Your task to perform on an android device: Go to Yahoo.com Image 0: 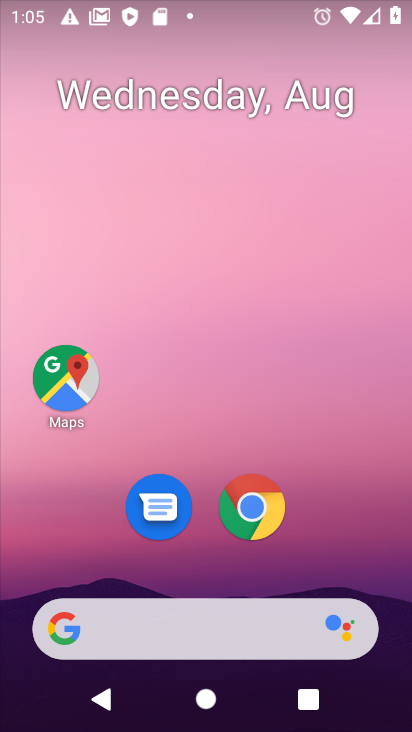
Step 0: drag from (206, 556) to (149, 145)
Your task to perform on an android device: Go to Yahoo.com Image 1: 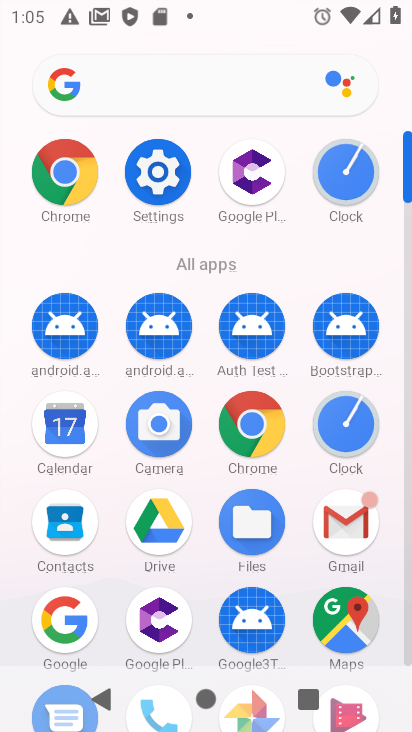
Step 1: click (275, 419)
Your task to perform on an android device: Go to Yahoo.com Image 2: 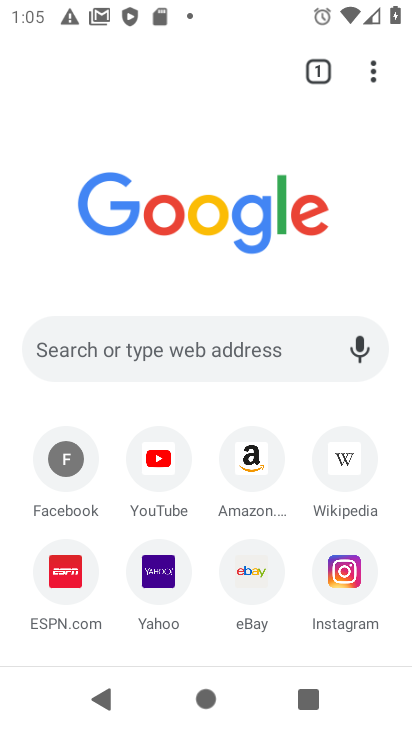
Step 2: click (144, 576)
Your task to perform on an android device: Go to Yahoo.com Image 3: 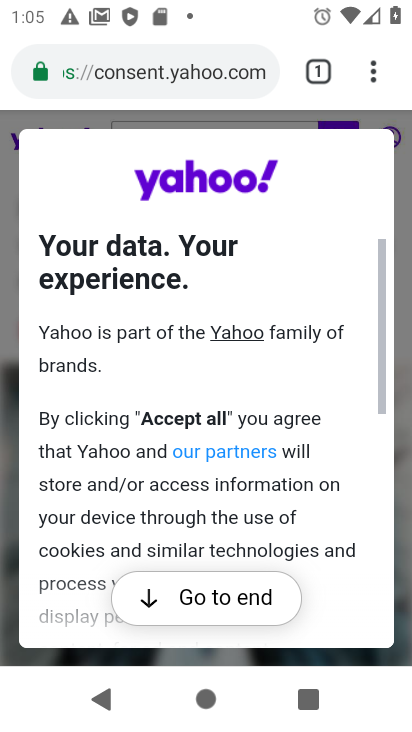
Step 3: click (219, 596)
Your task to perform on an android device: Go to Yahoo.com Image 4: 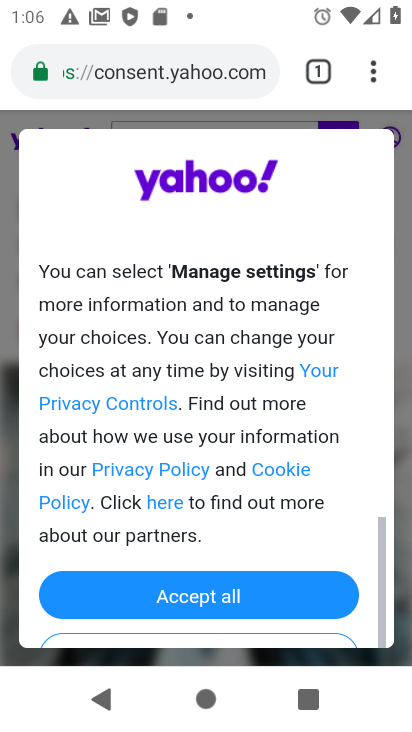
Step 4: click (233, 588)
Your task to perform on an android device: Go to Yahoo.com Image 5: 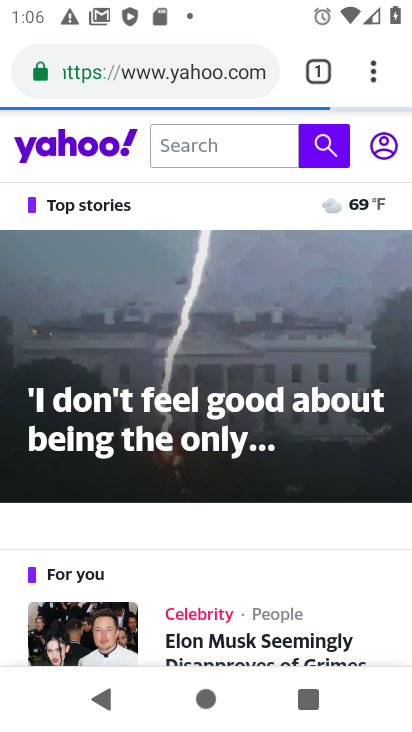
Step 5: task complete